Your task to perform on an android device: What's on my calendar today? Image 0: 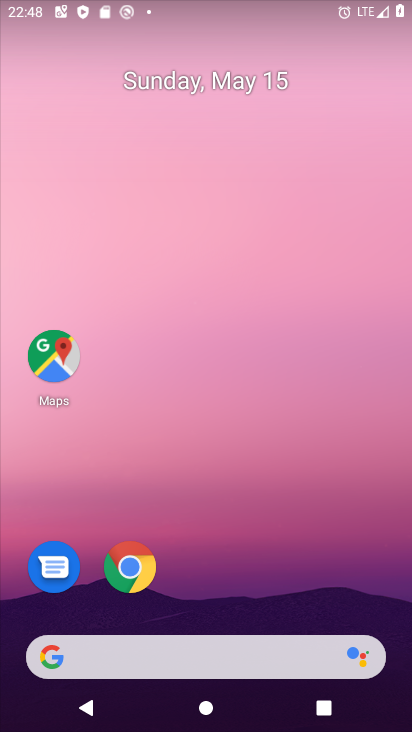
Step 0: drag from (264, 642) to (371, 25)
Your task to perform on an android device: What's on my calendar today? Image 1: 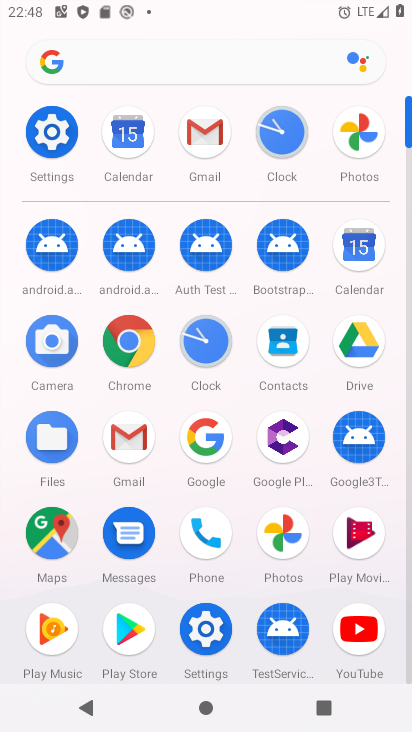
Step 1: click (347, 253)
Your task to perform on an android device: What's on my calendar today? Image 2: 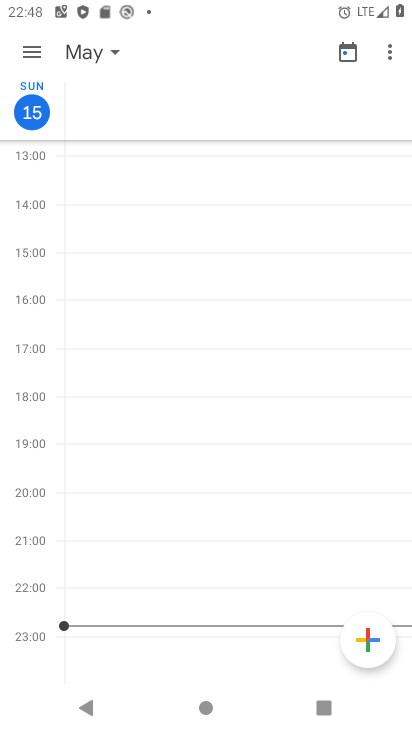
Step 2: click (86, 61)
Your task to perform on an android device: What's on my calendar today? Image 3: 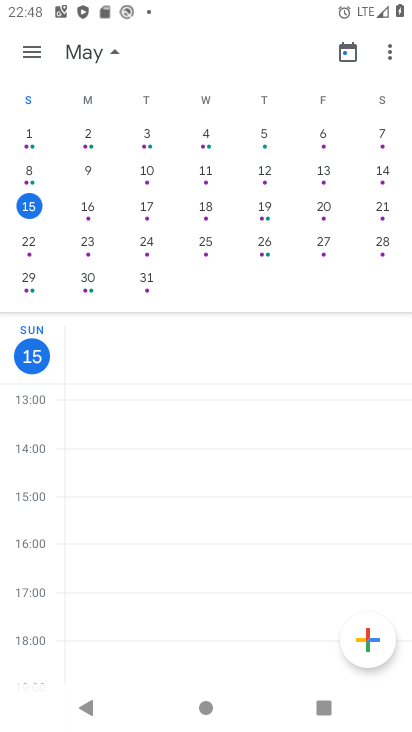
Step 3: click (30, 202)
Your task to perform on an android device: What's on my calendar today? Image 4: 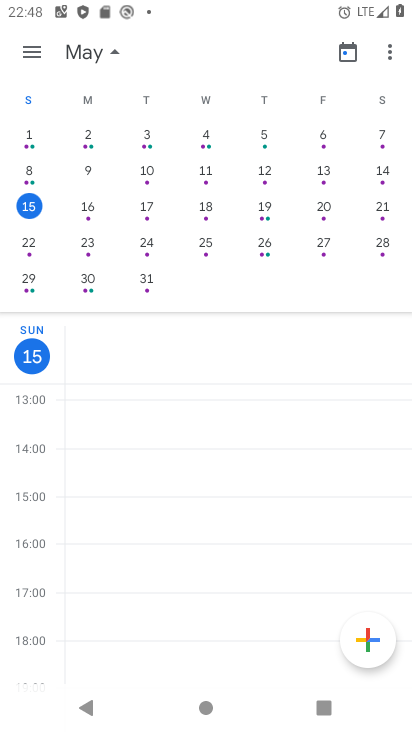
Step 4: task complete